Your task to perform on an android device: turn off priority inbox in the gmail app Image 0: 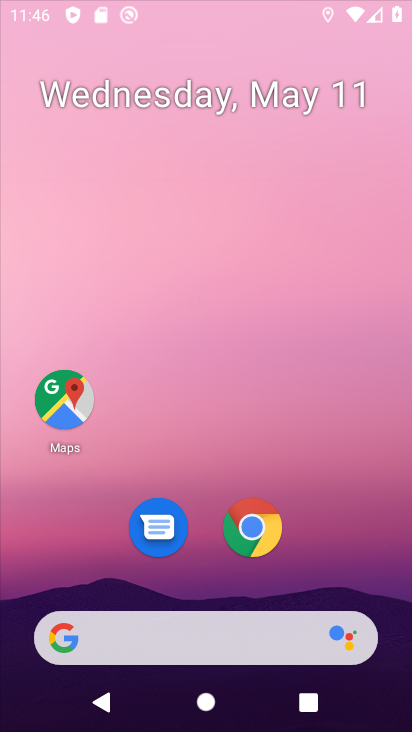
Step 0: drag from (195, 578) to (124, 101)
Your task to perform on an android device: turn off priority inbox in the gmail app Image 1: 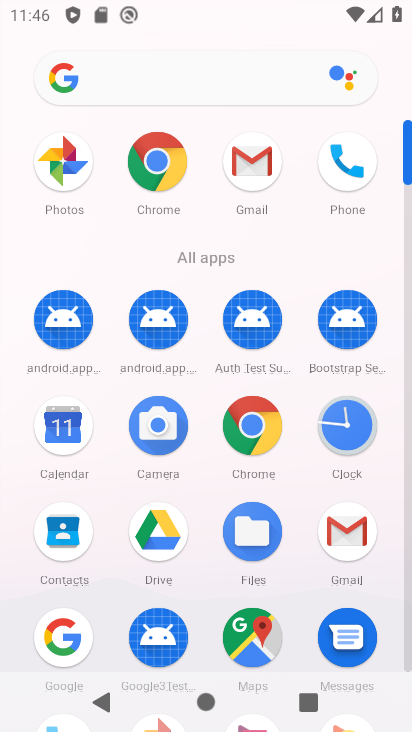
Step 1: drag from (195, 600) to (127, 287)
Your task to perform on an android device: turn off priority inbox in the gmail app Image 2: 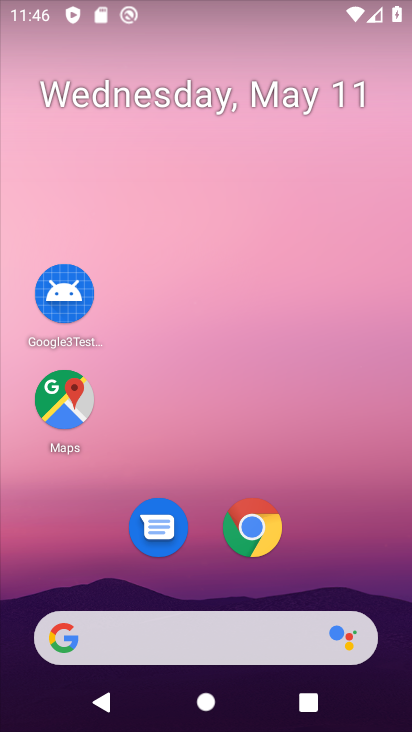
Step 2: drag from (260, 590) to (262, 12)
Your task to perform on an android device: turn off priority inbox in the gmail app Image 3: 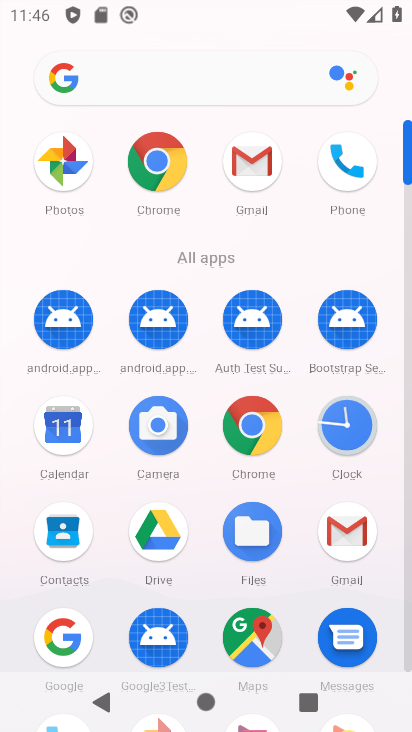
Step 3: click (346, 527)
Your task to perform on an android device: turn off priority inbox in the gmail app Image 4: 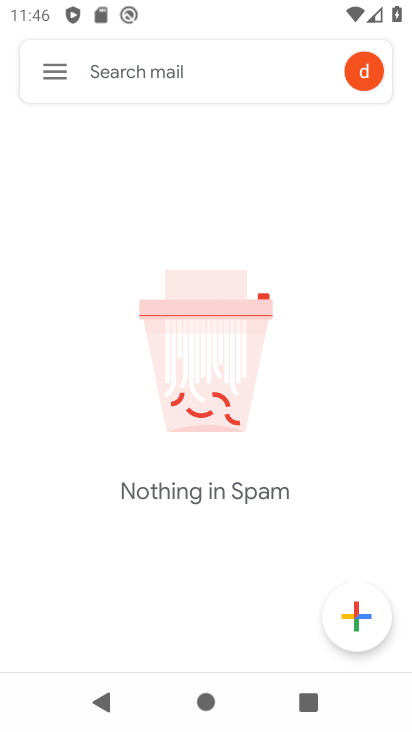
Step 4: click (50, 67)
Your task to perform on an android device: turn off priority inbox in the gmail app Image 5: 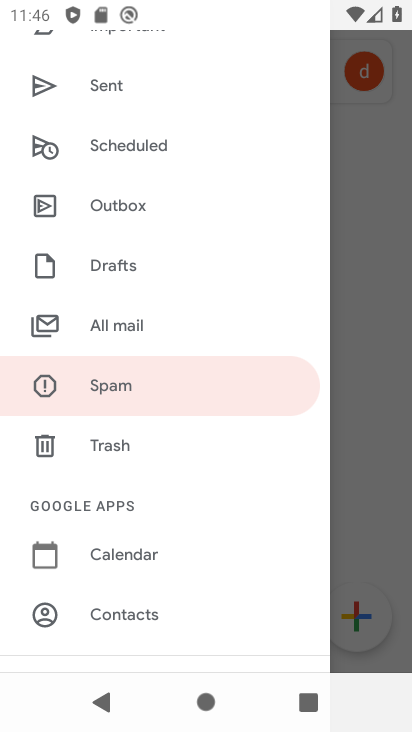
Step 5: drag from (139, 561) to (112, 23)
Your task to perform on an android device: turn off priority inbox in the gmail app Image 6: 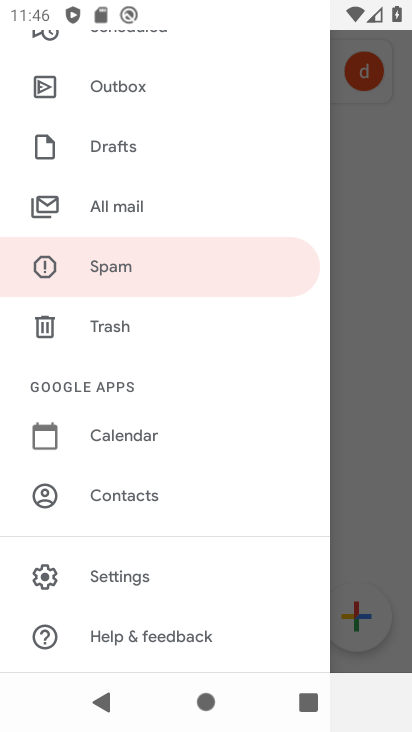
Step 6: click (95, 561)
Your task to perform on an android device: turn off priority inbox in the gmail app Image 7: 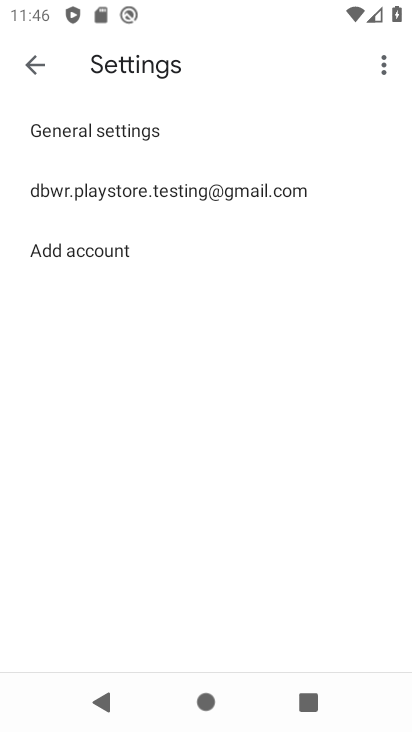
Step 7: click (88, 202)
Your task to perform on an android device: turn off priority inbox in the gmail app Image 8: 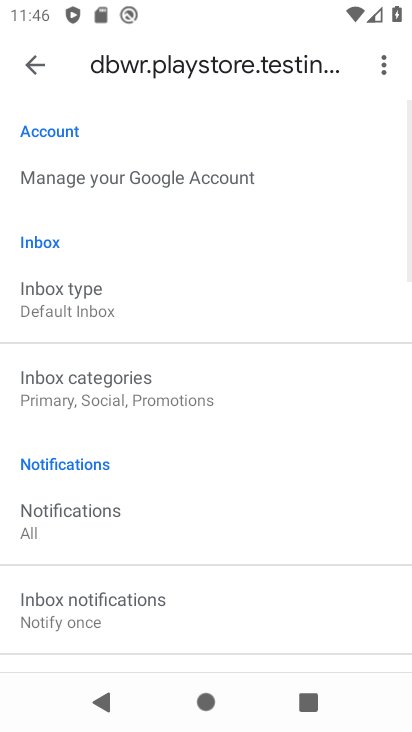
Step 8: click (71, 295)
Your task to perform on an android device: turn off priority inbox in the gmail app Image 9: 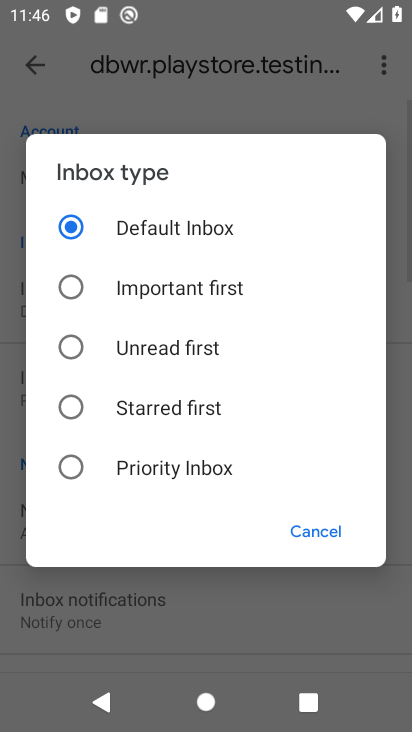
Step 9: task complete